Your task to perform on an android device: check storage Image 0: 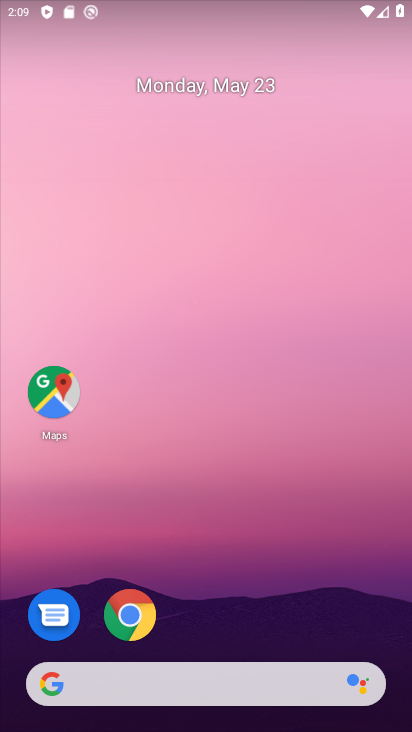
Step 0: drag from (268, 647) to (270, 29)
Your task to perform on an android device: check storage Image 1: 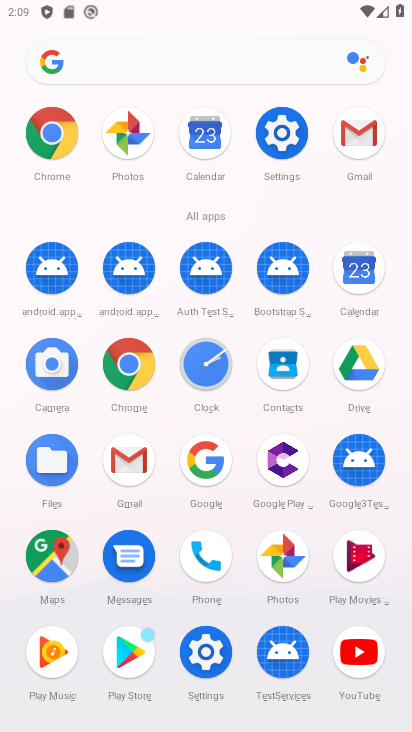
Step 1: click (282, 141)
Your task to perform on an android device: check storage Image 2: 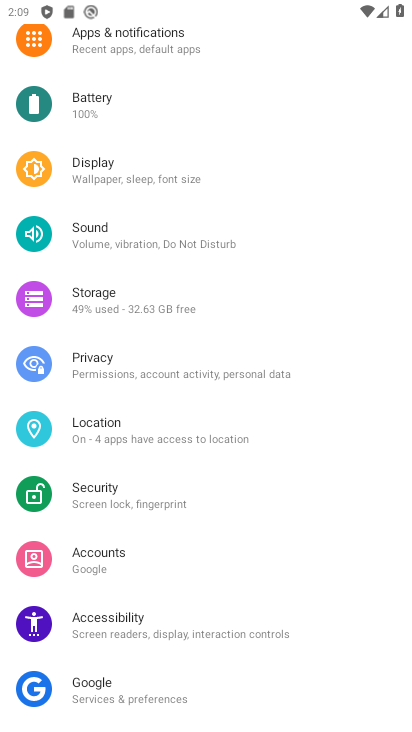
Step 2: click (116, 297)
Your task to perform on an android device: check storage Image 3: 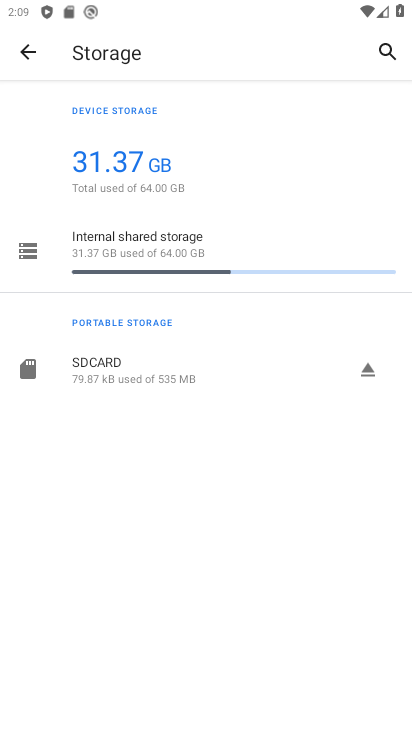
Step 3: click (155, 222)
Your task to perform on an android device: check storage Image 4: 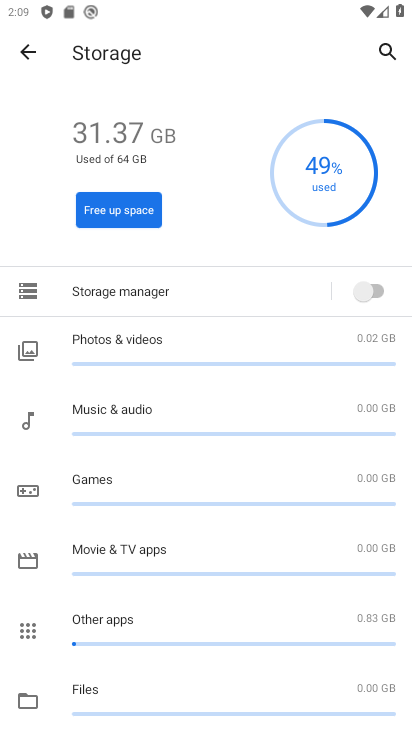
Step 4: task complete